Your task to perform on an android device: turn on notifications settings in the gmail app Image 0: 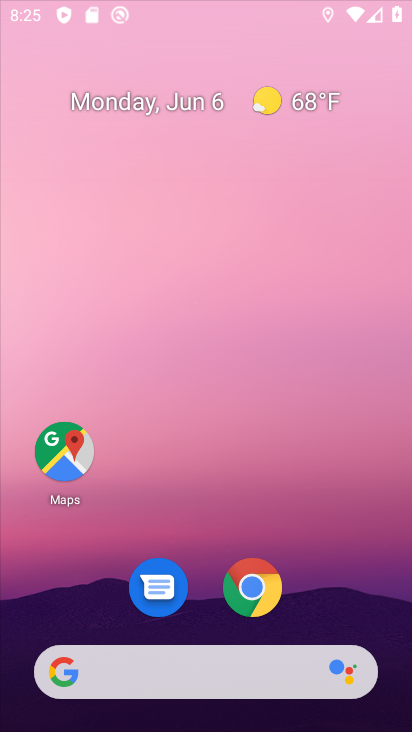
Step 0: drag from (225, 667) to (254, 186)
Your task to perform on an android device: turn on notifications settings in the gmail app Image 1: 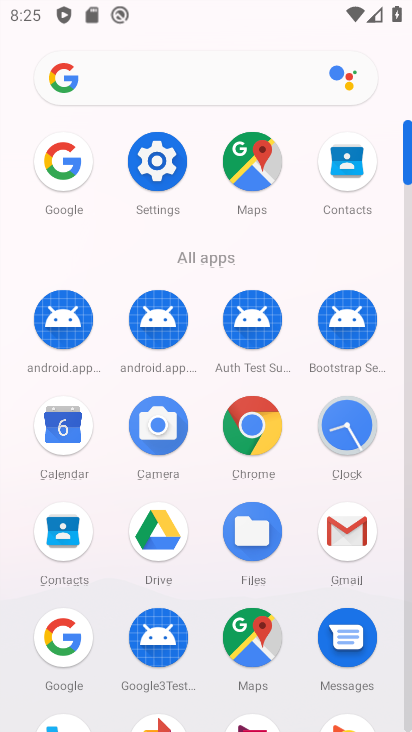
Step 1: click (333, 534)
Your task to perform on an android device: turn on notifications settings in the gmail app Image 2: 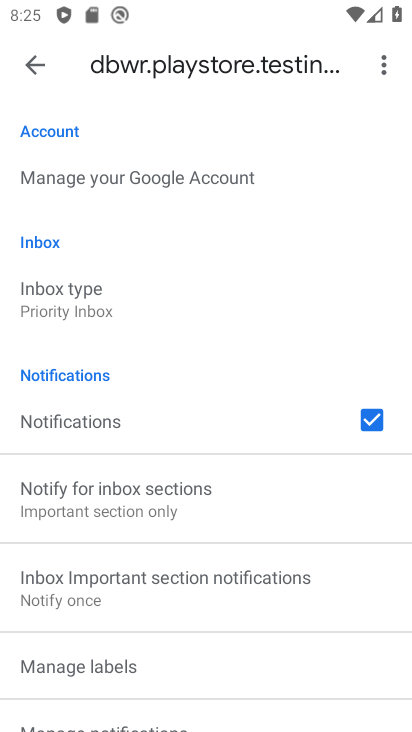
Step 2: press home button
Your task to perform on an android device: turn on notifications settings in the gmail app Image 3: 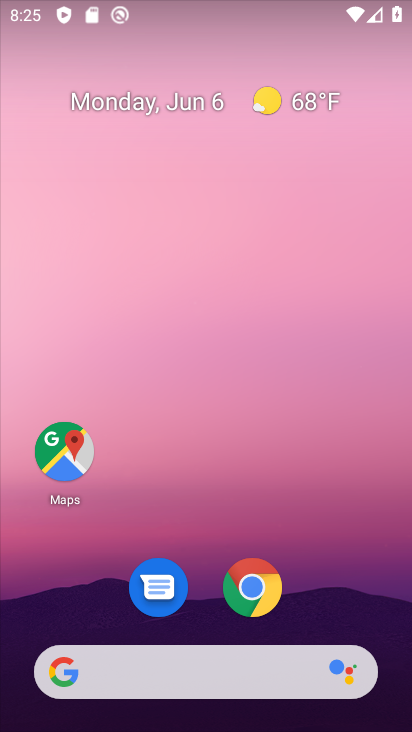
Step 3: drag from (186, 656) to (161, 82)
Your task to perform on an android device: turn on notifications settings in the gmail app Image 4: 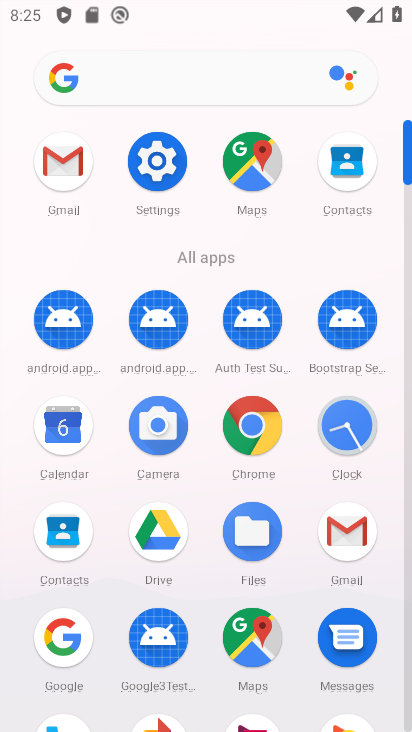
Step 4: drag from (161, 82) to (65, 192)
Your task to perform on an android device: turn on notifications settings in the gmail app Image 5: 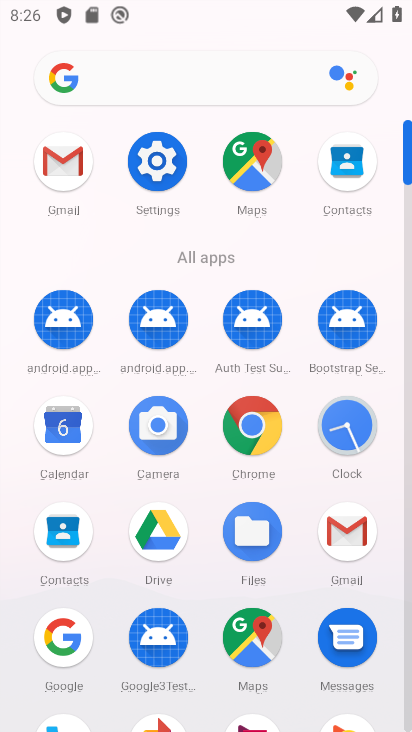
Step 5: click (60, 172)
Your task to perform on an android device: turn on notifications settings in the gmail app Image 6: 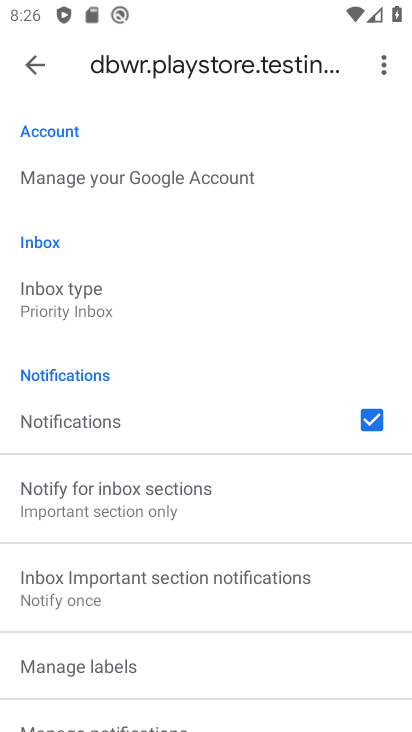
Step 6: drag from (183, 653) to (227, 418)
Your task to perform on an android device: turn on notifications settings in the gmail app Image 7: 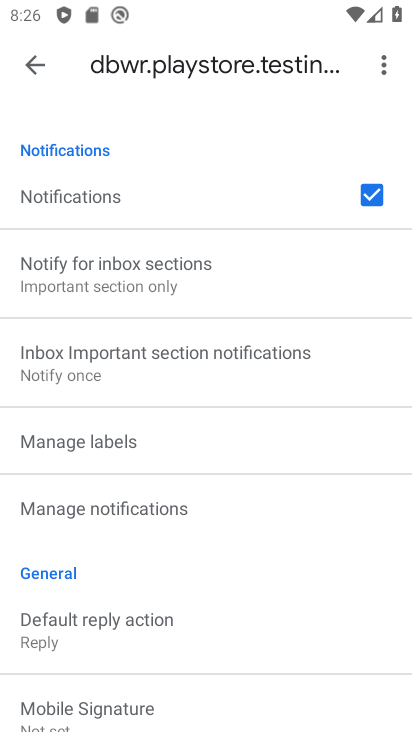
Step 7: click (153, 504)
Your task to perform on an android device: turn on notifications settings in the gmail app Image 8: 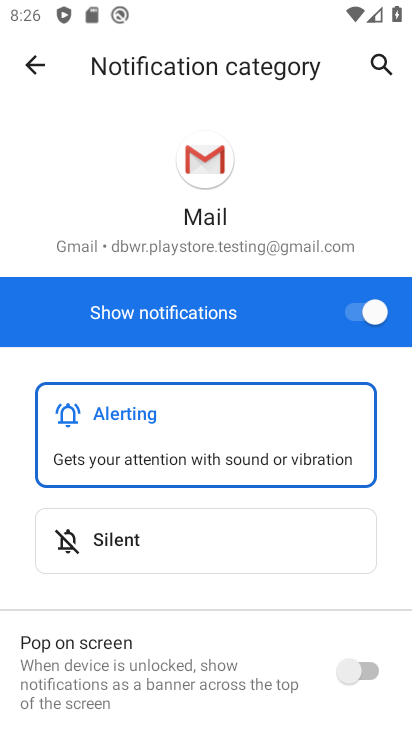
Step 8: task complete